Your task to perform on an android device: turn off picture-in-picture Image 0: 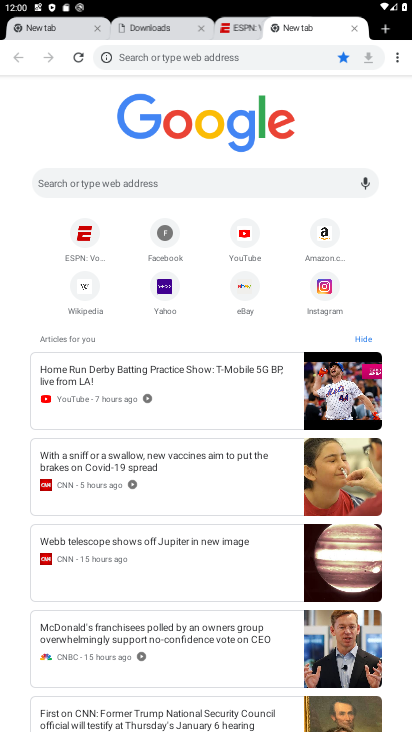
Step 0: press home button
Your task to perform on an android device: turn off picture-in-picture Image 1: 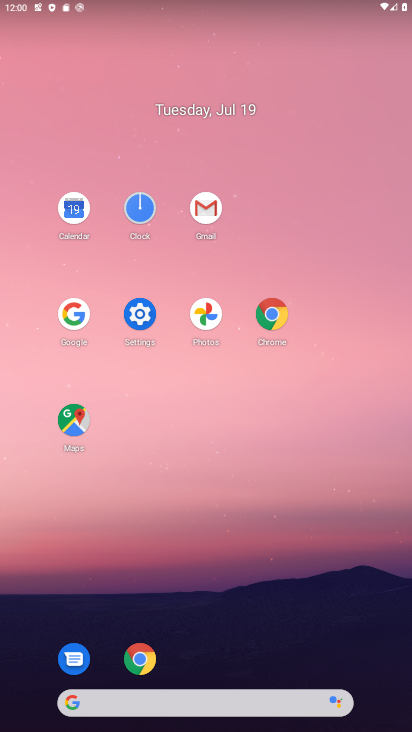
Step 1: click (276, 306)
Your task to perform on an android device: turn off picture-in-picture Image 2: 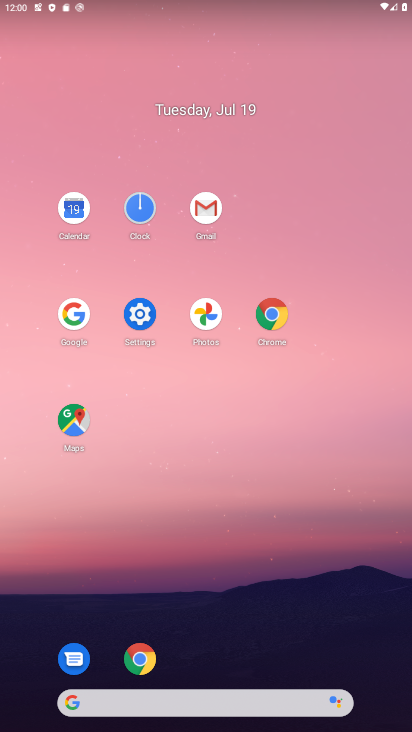
Step 2: click (340, 203)
Your task to perform on an android device: turn off picture-in-picture Image 3: 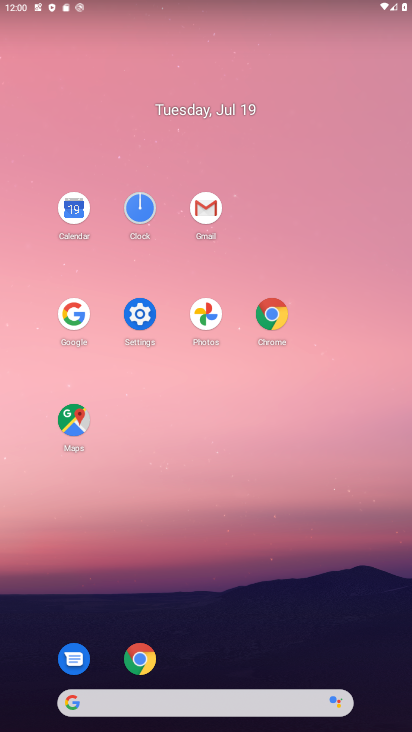
Step 3: click (275, 303)
Your task to perform on an android device: turn off picture-in-picture Image 4: 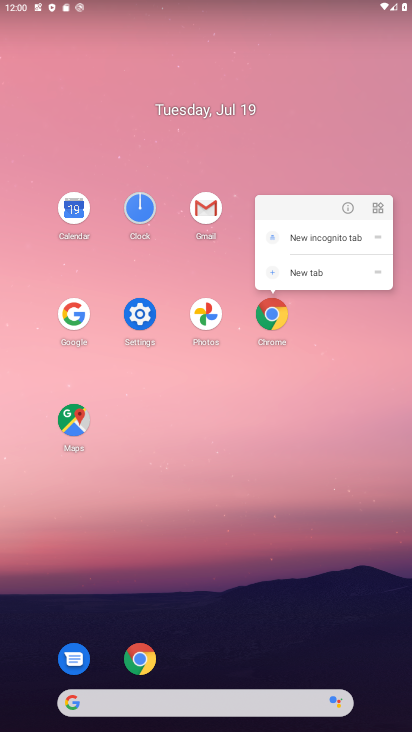
Step 4: click (345, 204)
Your task to perform on an android device: turn off picture-in-picture Image 5: 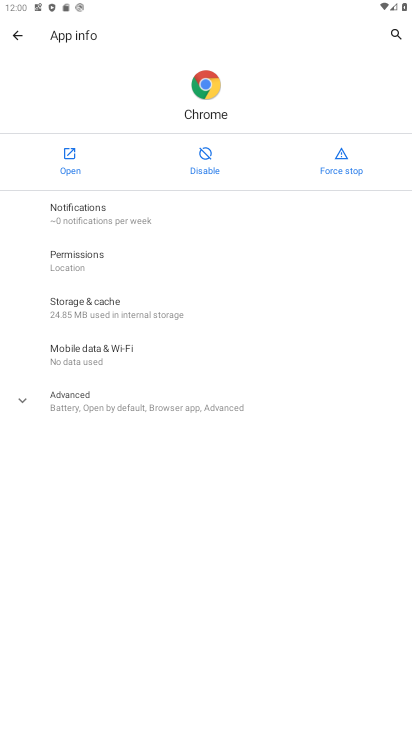
Step 5: click (166, 403)
Your task to perform on an android device: turn off picture-in-picture Image 6: 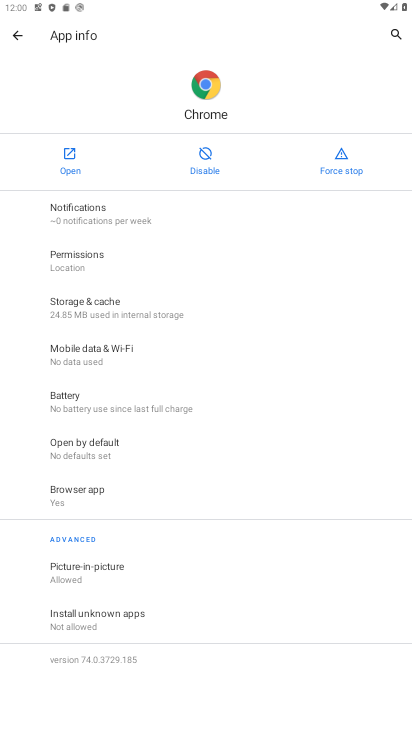
Step 6: click (170, 571)
Your task to perform on an android device: turn off picture-in-picture Image 7: 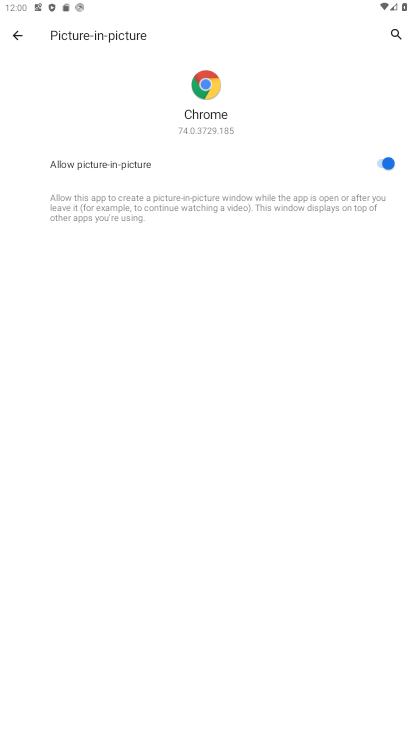
Step 7: click (380, 162)
Your task to perform on an android device: turn off picture-in-picture Image 8: 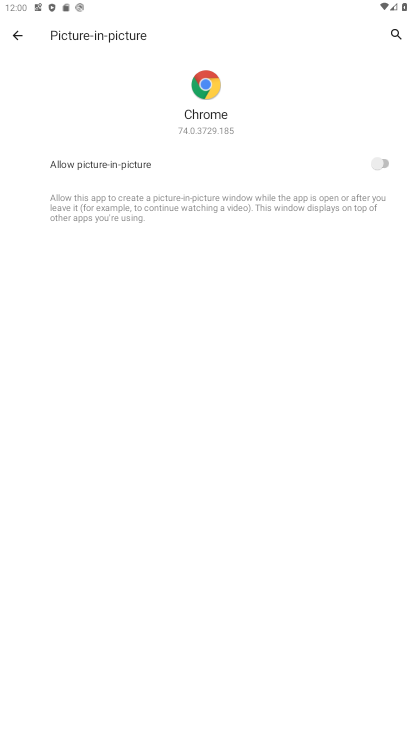
Step 8: task complete